Your task to perform on an android device: change the clock display to digital Image 0: 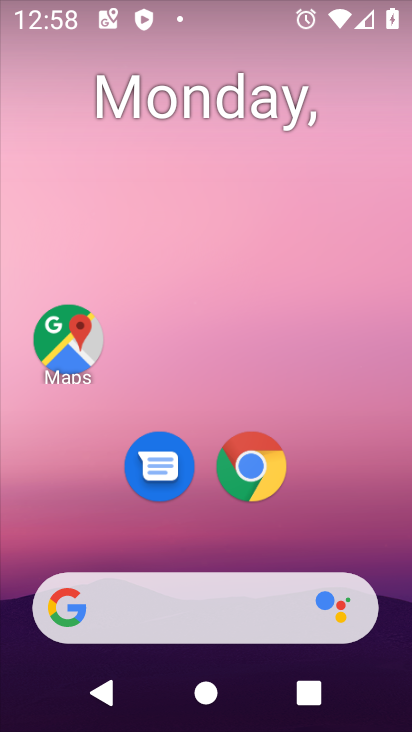
Step 0: drag from (374, 173) to (321, 65)
Your task to perform on an android device: change the clock display to digital Image 1: 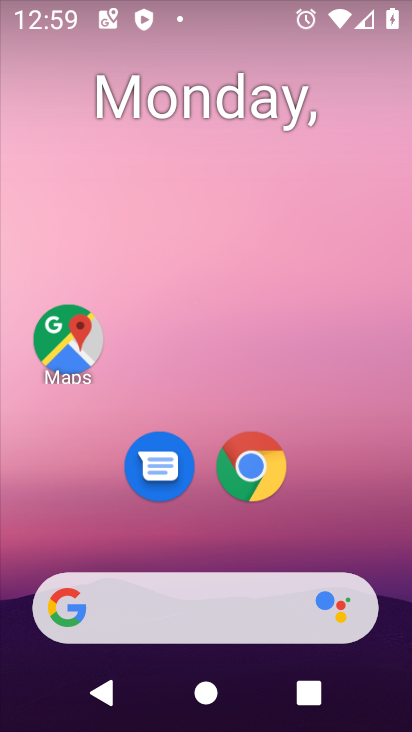
Step 1: drag from (396, 625) to (181, 47)
Your task to perform on an android device: change the clock display to digital Image 2: 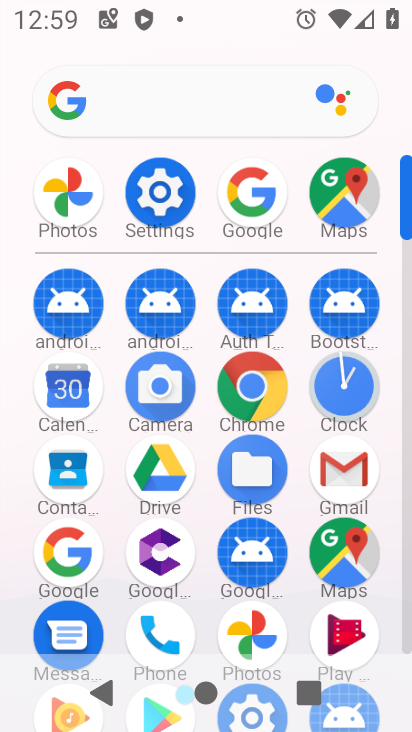
Step 2: click (322, 399)
Your task to perform on an android device: change the clock display to digital Image 3: 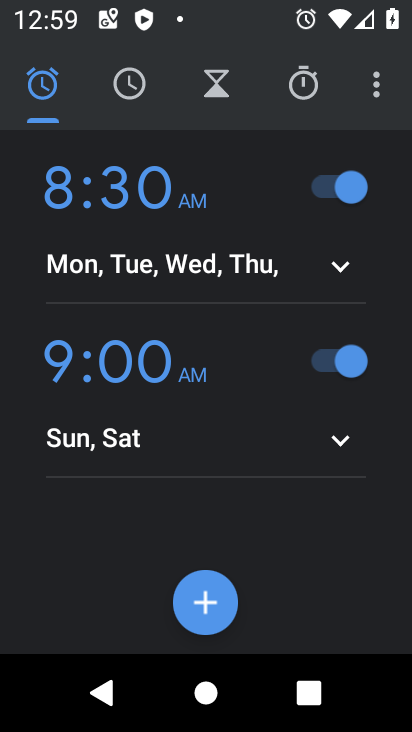
Step 3: click (378, 77)
Your task to perform on an android device: change the clock display to digital Image 4: 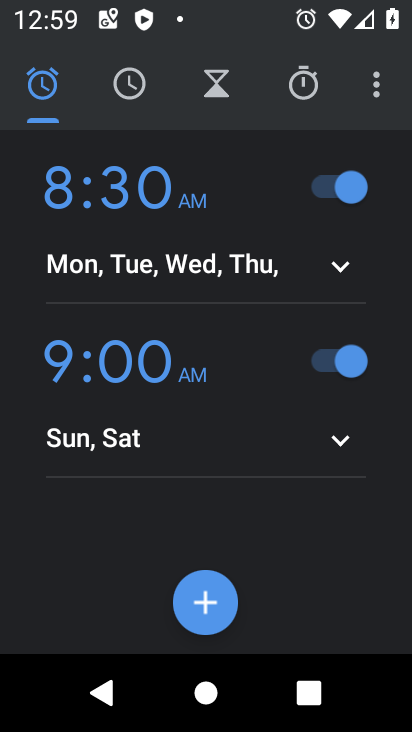
Step 4: click (372, 80)
Your task to perform on an android device: change the clock display to digital Image 5: 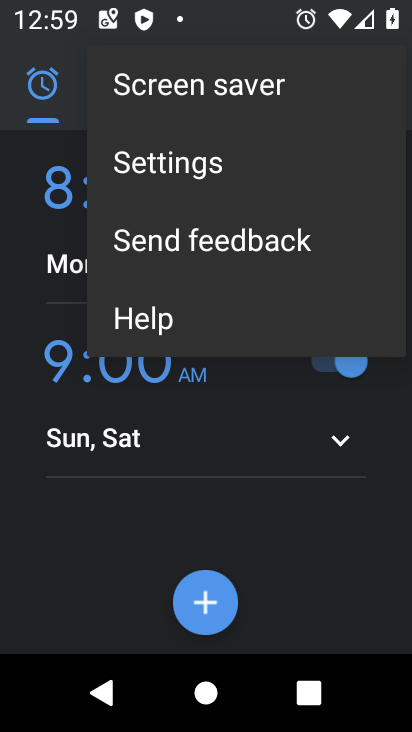
Step 5: click (210, 164)
Your task to perform on an android device: change the clock display to digital Image 6: 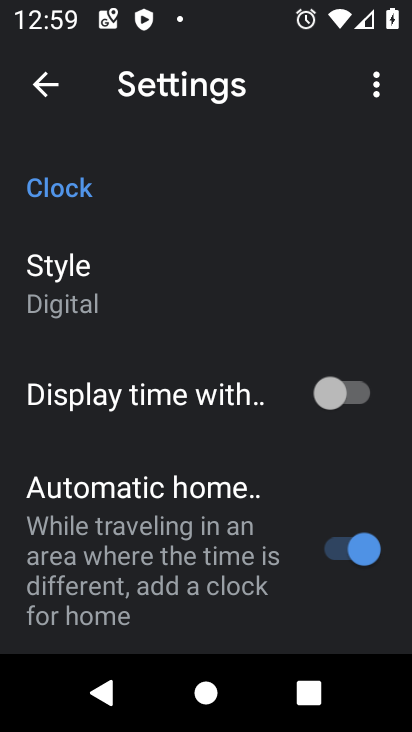
Step 6: task complete